Your task to perform on an android device: Open settings Image 0: 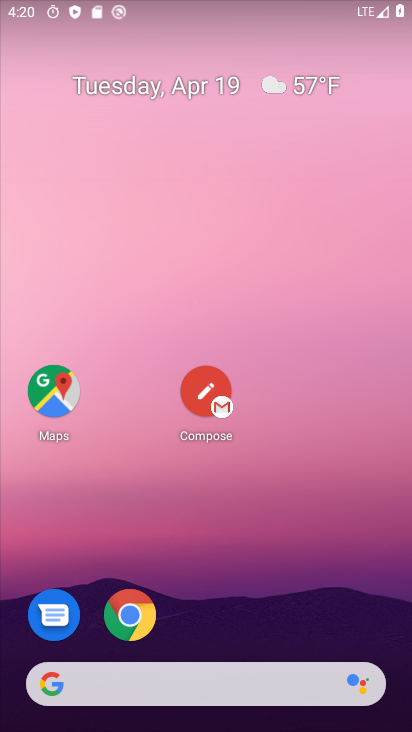
Step 0: drag from (251, 551) to (222, 46)
Your task to perform on an android device: Open settings Image 1: 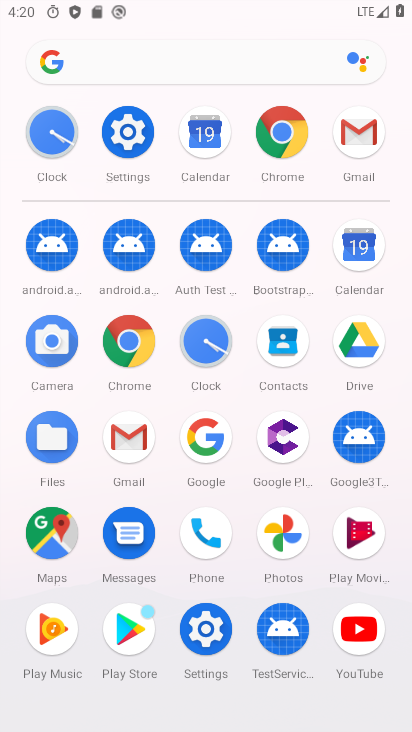
Step 1: click (210, 626)
Your task to perform on an android device: Open settings Image 2: 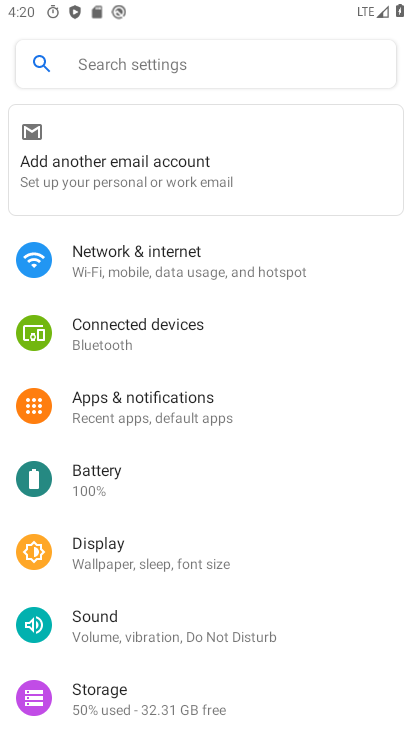
Step 2: task complete